Your task to perform on an android device: toggle sleep mode Image 0: 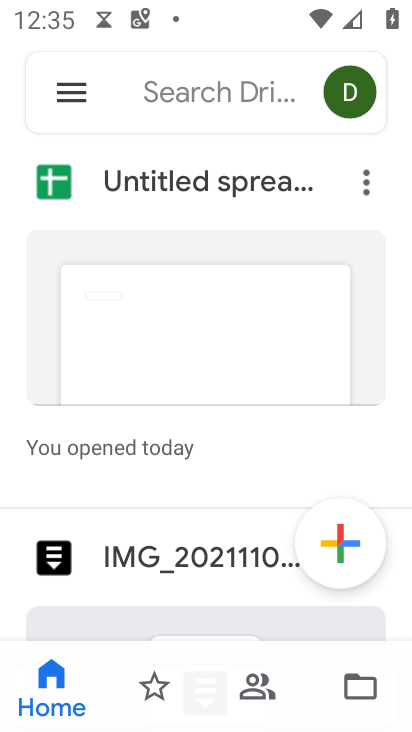
Step 0: press home button
Your task to perform on an android device: toggle sleep mode Image 1: 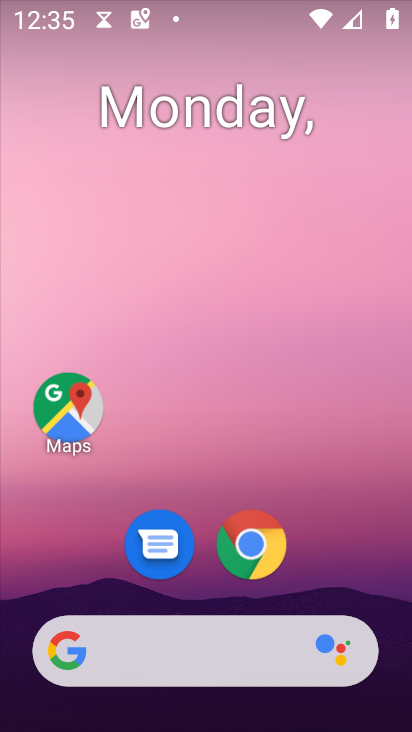
Step 1: drag from (328, 584) to (323, 259)
Your task to perform on an android device: toggle sleep mode Image 2: 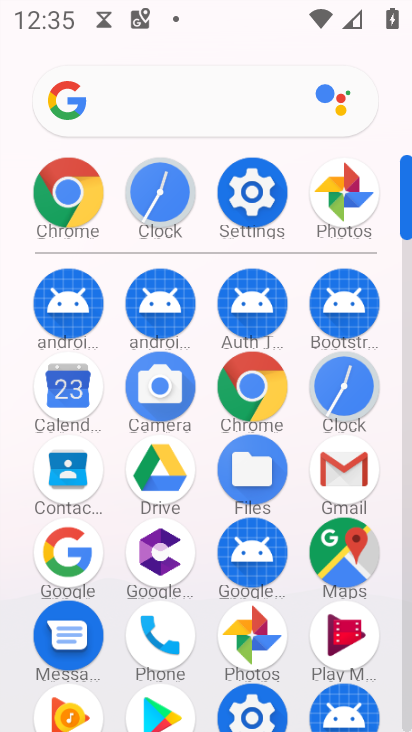
Step 2: click (242, 175)
Your task to perform on an android device: toggle sleep mode Image 3: 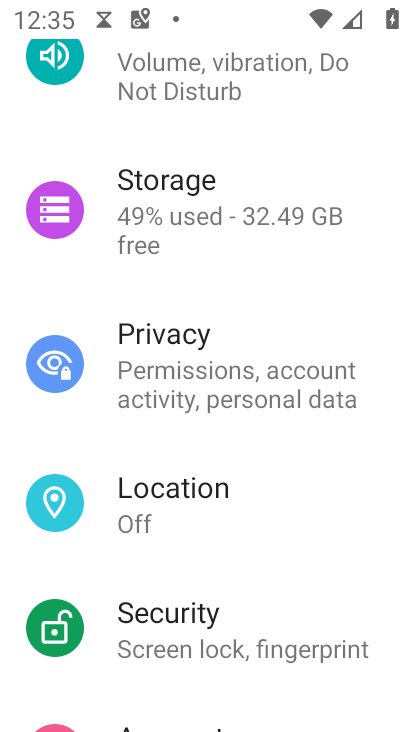
Step 3: task complete